Your task to perform on an android device: Do I have any events this weekend? Image 0: 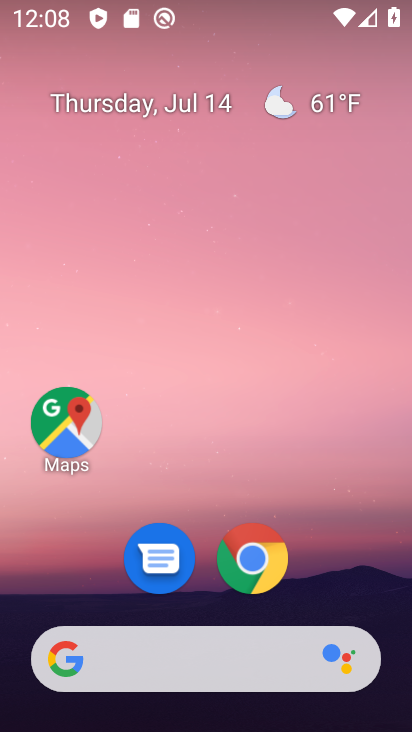
Step 0: drag from (215, 594) to (251, 31)
Your task to perform on an android device: Do I have any events this weekend? Image 1: 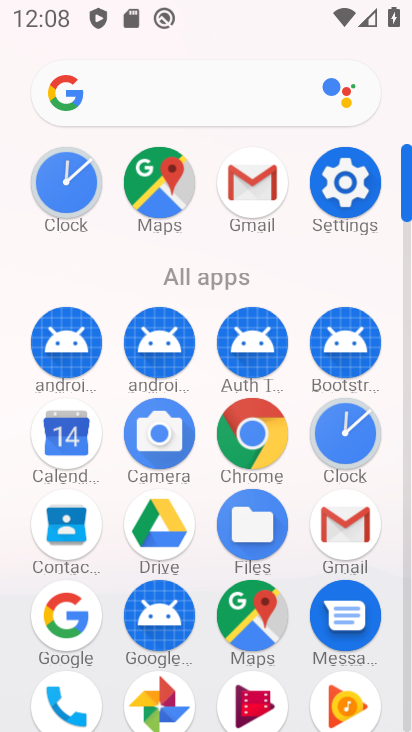
Step 1: click (58, 451)
Your task to perform on an android device: Do I have any events this weekend? Image 2: 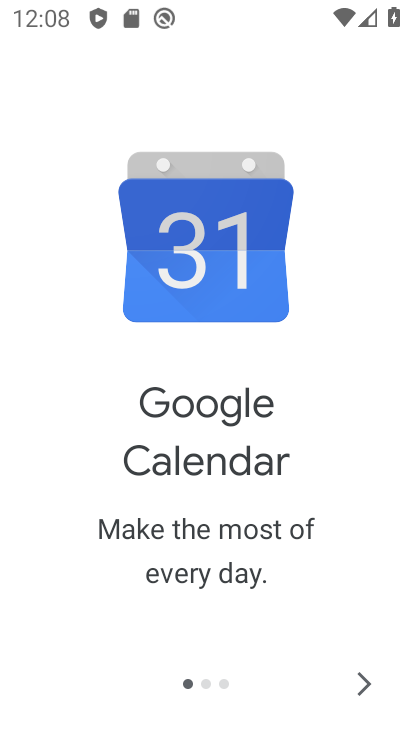
Step 2: click (358, 672)
Your task to perform on an android device: Do I have any events this weekend? Image 3: 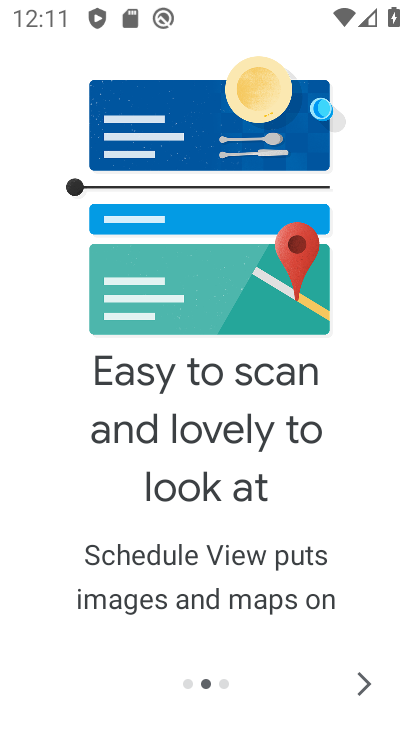
Step 3: click (373, 674)
Your task to perform on an android device: Do I have any events this weekend? Image 4: 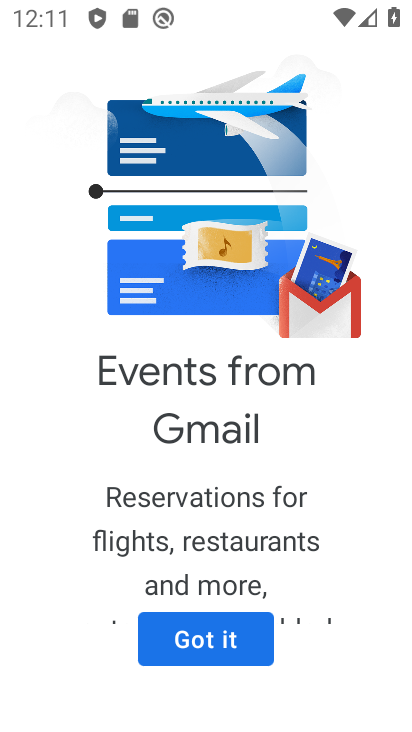
Step 4: click (216, 634)
Your task to perform on an android device: Do I have any events this weekend? Image 5: 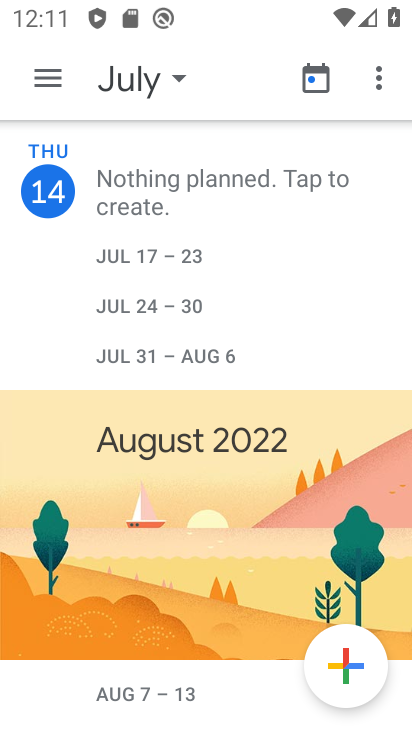
Step 5: click (126, 81)
Your task to perform on an android device: Do I have any events this weekend? Image 6: 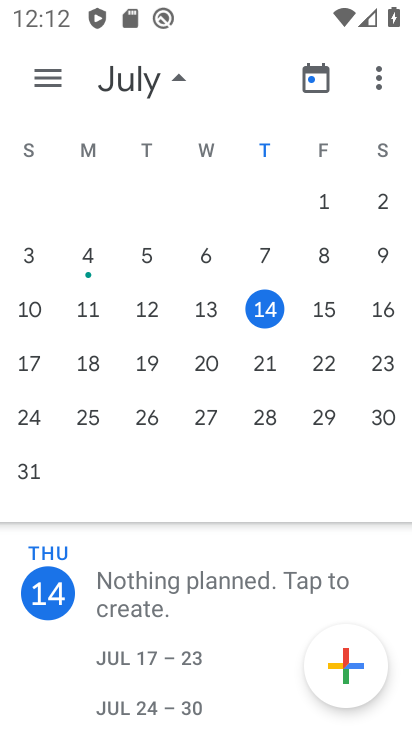
Step 6: task complete